Your task to perform on an android device: Open calendar and show me the first week of next month Image 0: 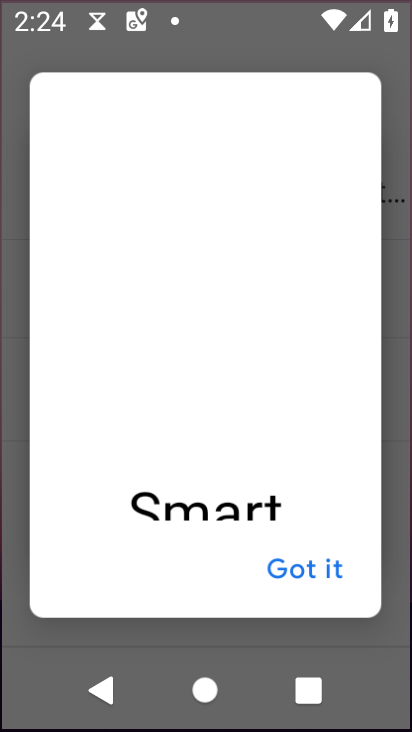
Step 0: press home button
Your task to perform on an android device: Open calendar and show me the first week of next month Image 1: 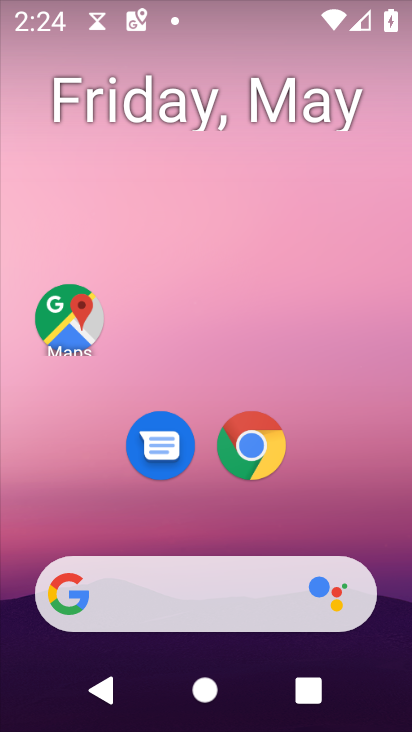
Step 1: drag from (206, 528) to (261, 44)
Your task to perform on an android device: Open calendar and show me the first week of next month Image 2: 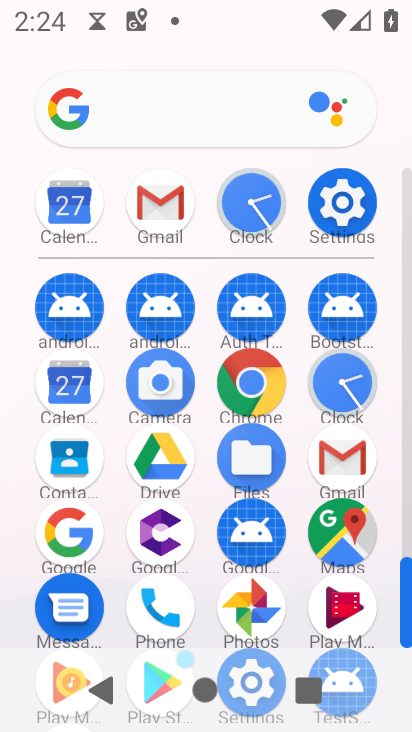
Step 2: click (336, 192)
Your task to perform on an android device: Open calendar and show me the first week of next month Image 3: 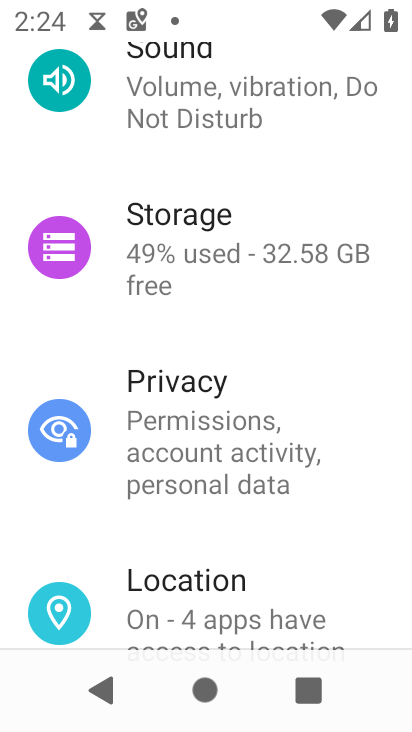
Step 3: press home button
Your task to perform on an android device: Open calendar and show me the first week of next month Image 4: 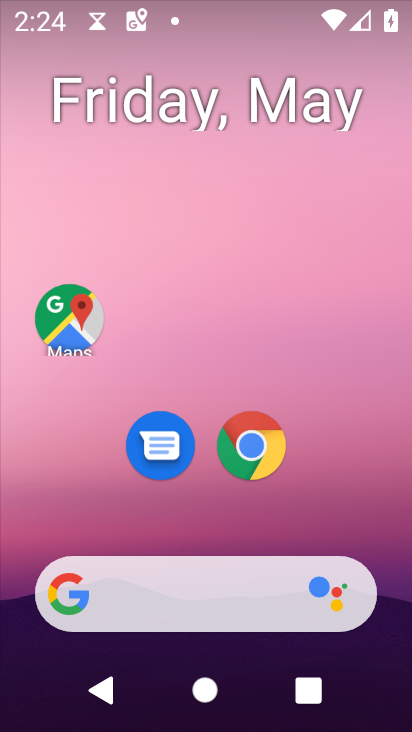
Step 4: drag from (197, 520) to (237, 35)
Your task to perform on an android device: Open calendar and show me the first week of next month Image 5: 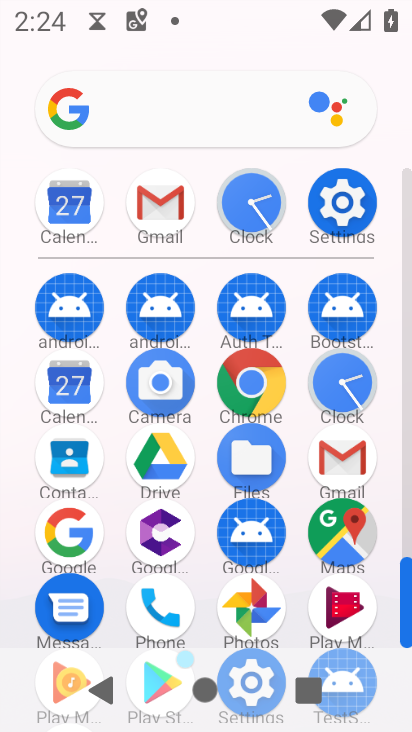
Step 5: click (61, 370)
Your task to perform on an android device: Open calendar and show me the first week of next month Image 6: 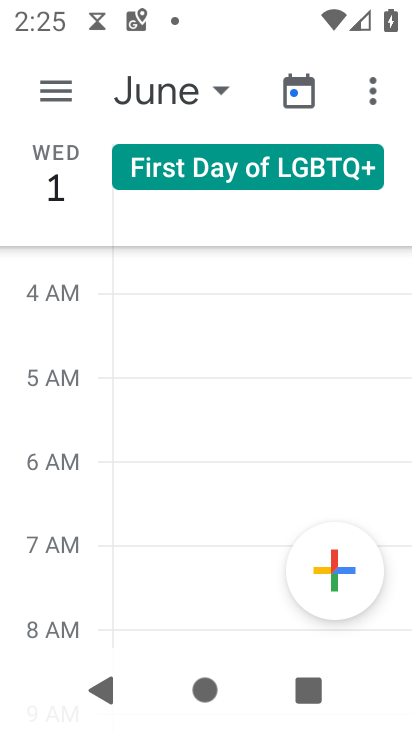
Step 6: task complete